Your task to perform on an android device: uninstall "Google Translate" Image 0: 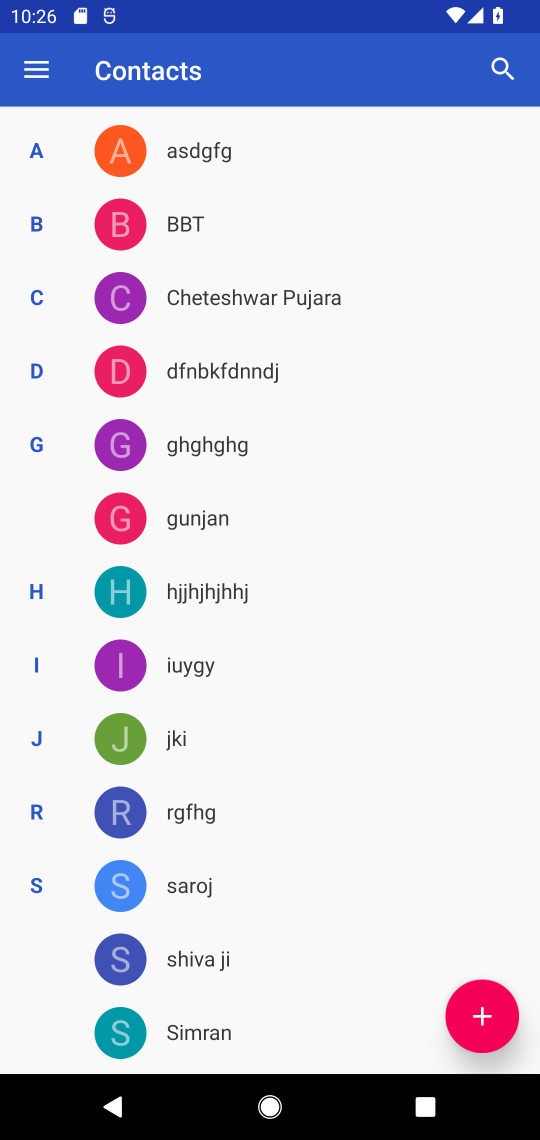
Step 0: press home button
Your task to perform on an android device: uninstall "Google Translate" Image 1: 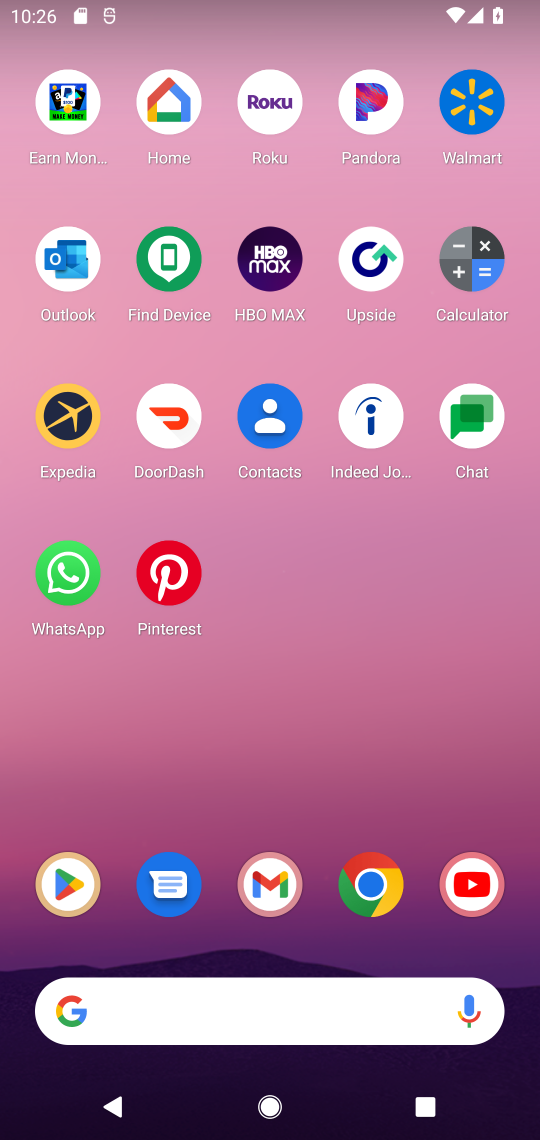
Step 1: click (73, 881)
Your task to perform on an android device: uninstall "Google Translate" Image 2: 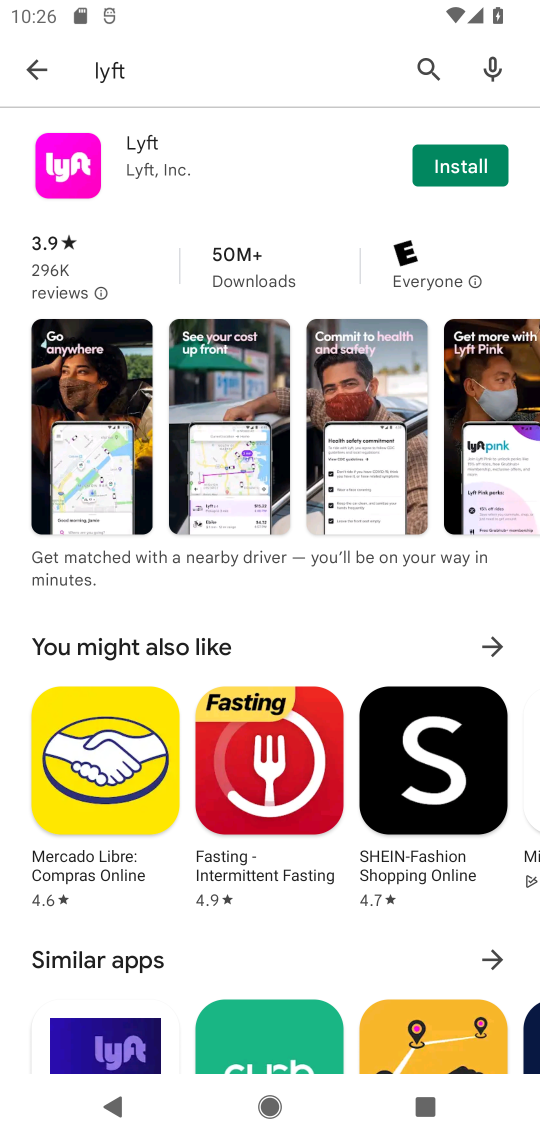
Step 2: click (197, 75)
Your task to perform on an android device: uninstall "Google Translate" Image 3: 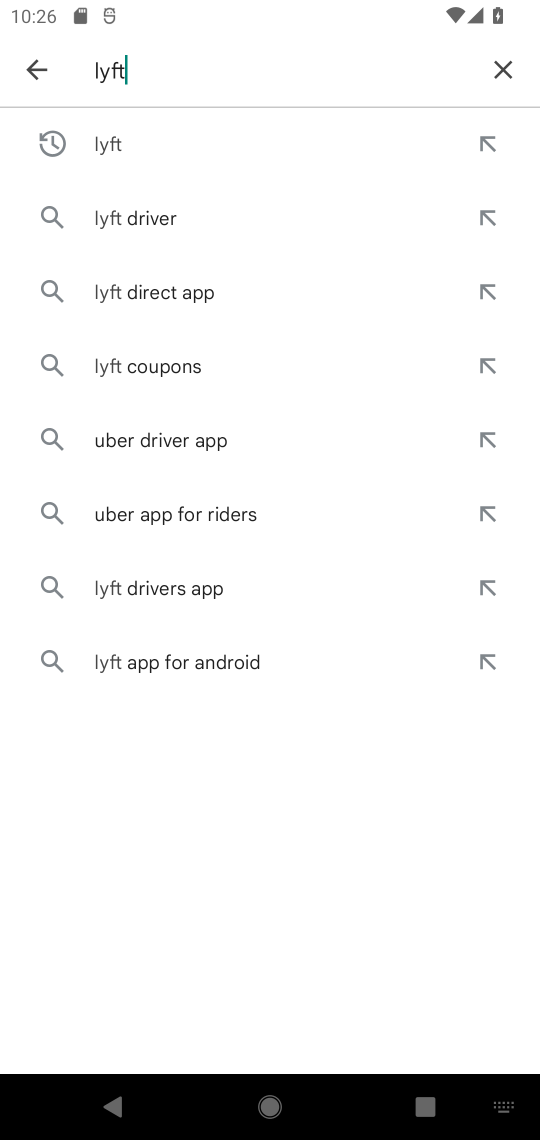
Step 3: click (517, 68)
Your task to perform on an android device: uninstall "Google Translate" Image 4: 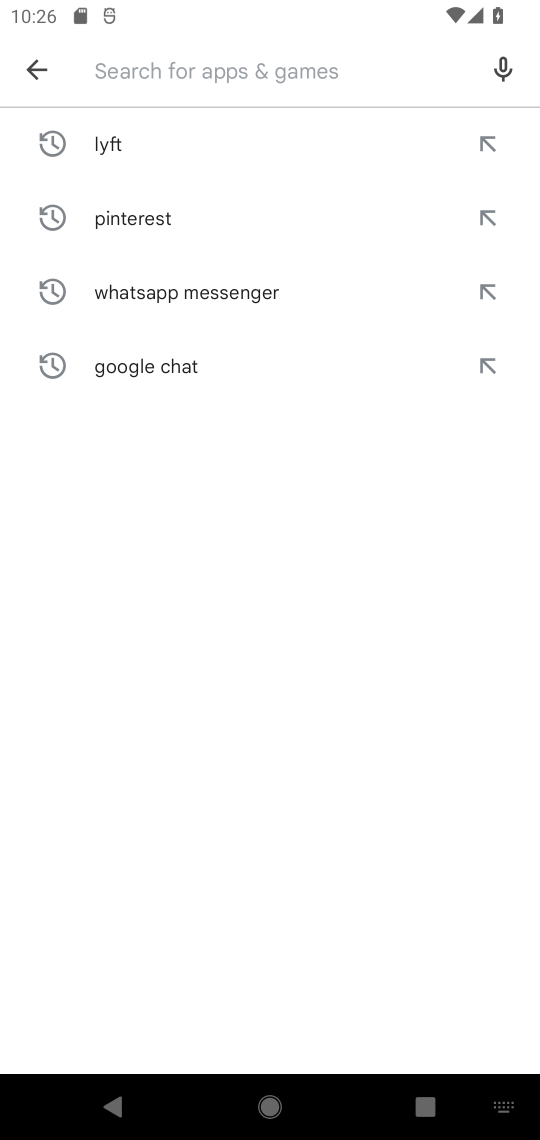
Step 4: type "google translate"
Your task to perform on an android device: uninstall "Google Translate" Image 5: 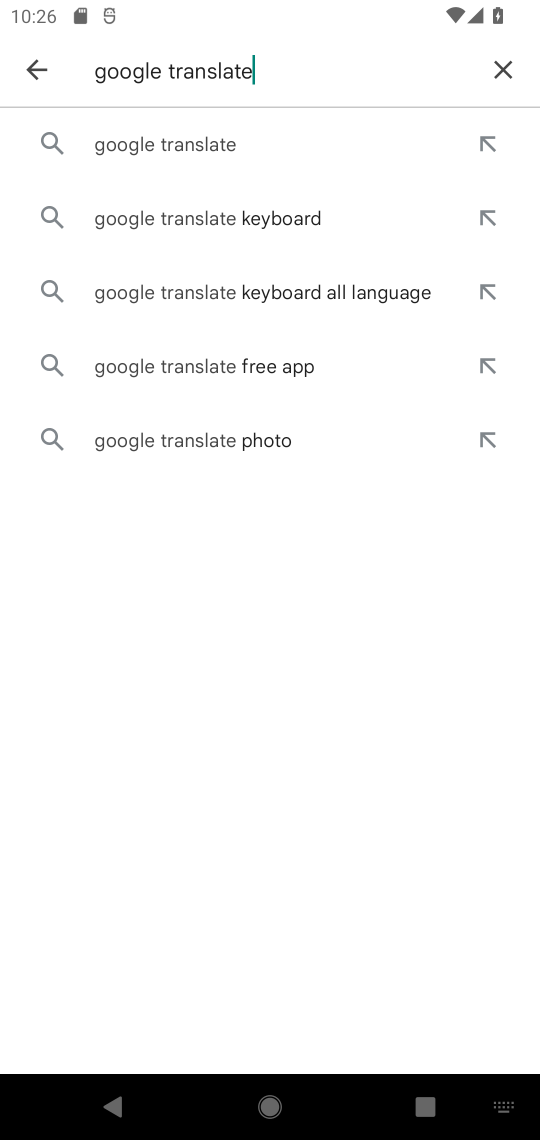
Step 5: click (190, 142)
Your task to perform on an android device: uninstall "Google Translate" Image 6: 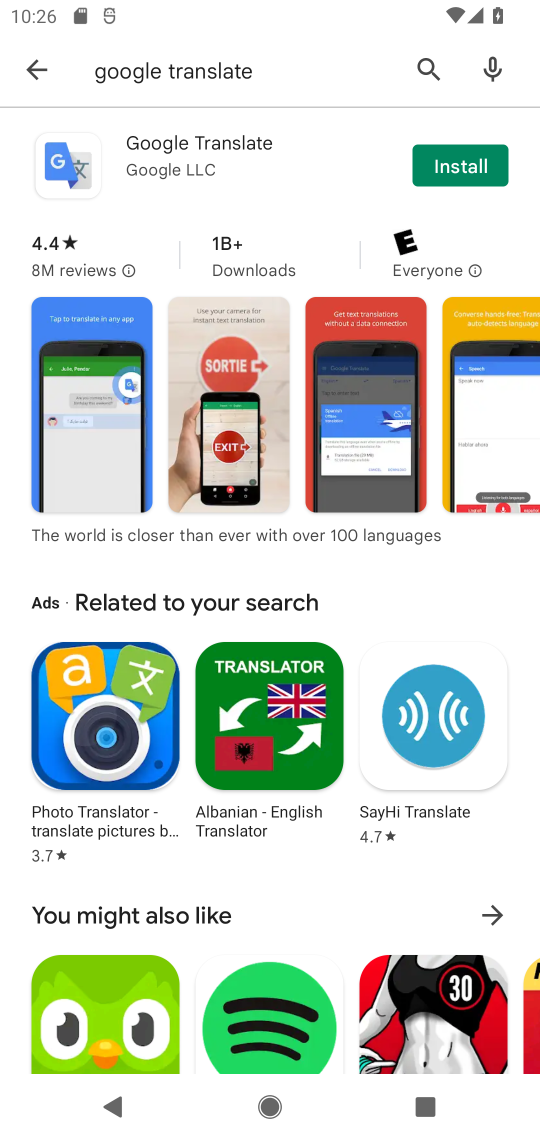
Step 6: task complete